Your task to perform on an android device: turn on priority inbox in the gmail app Image 0: 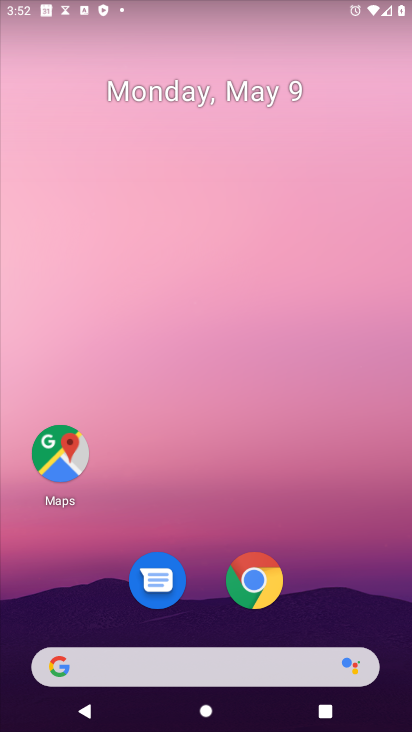
Step 0: drag from (340, 583) to (182, 47)
Your task to perform on an android device: turn on priority inbox in the gmail app Image 1: 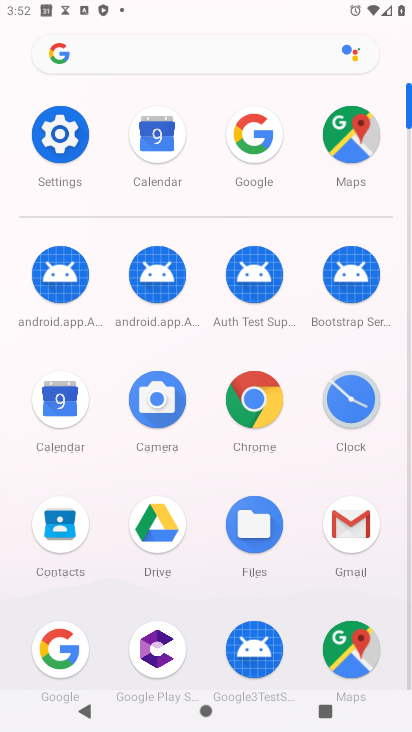
Step 1: click (363, 514)
Your task to perform on an android device: turn on priority inbox in the gmail app Image 2: 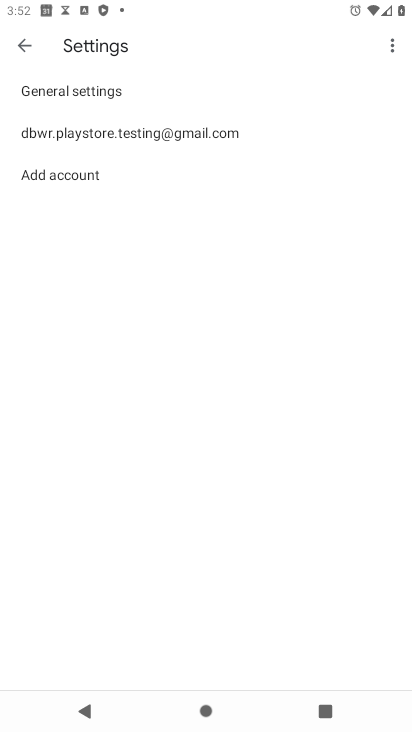
Step 2: click (65, 133)
Your task to perform on an android device: turn on priority inbox in the gmail app Image 3: 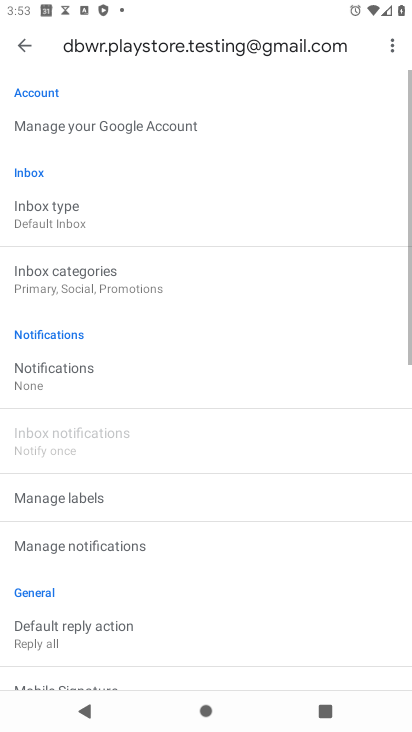
Step 3: click (78, 211)
Your task to perform on an android device: turn on priority inbox in the gmail app Image 4: 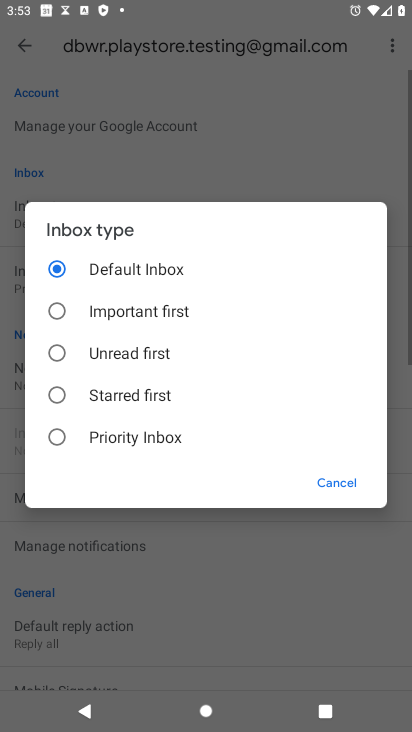
Step 4: click (137, 439)
Your task to perform on an android device: turn on priority inbox in the gmail app Image 5: 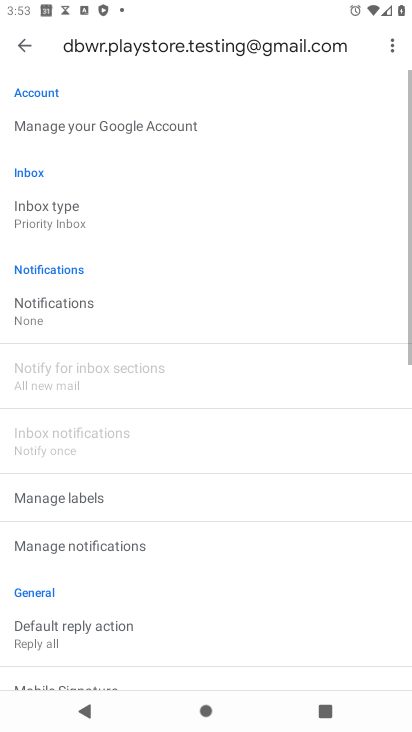
Step 5: task complete